Your task to perform on an android device: open app "Flipkart Online Shopping App" (install if not already installed), go to login, and select forgot password Image 0: 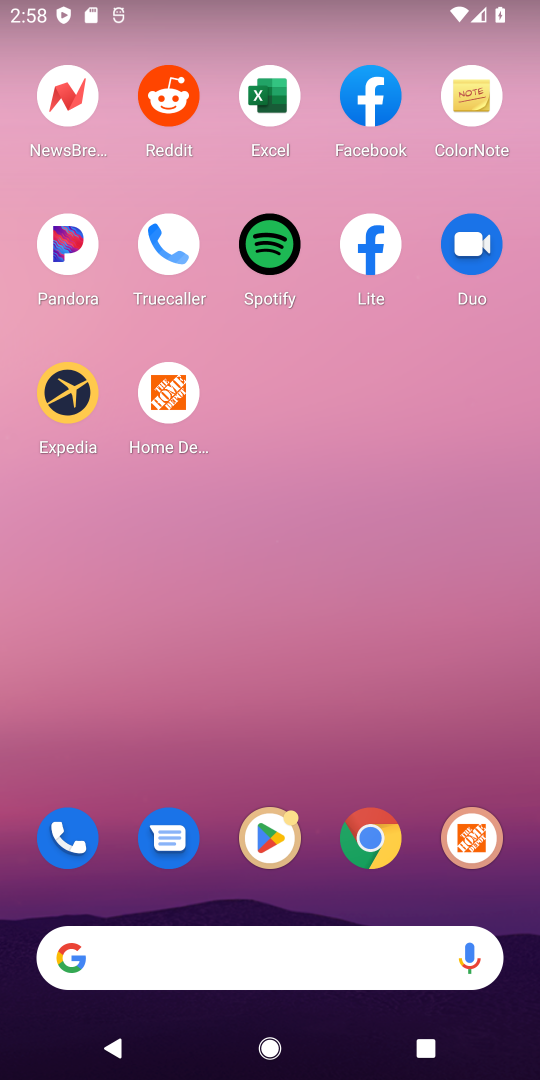
Step 0: press home button
Your task to perform on an android device: open app "Flipkart Online Shopping App" (install if not already installed), go to login, and select forgot password Image 1: 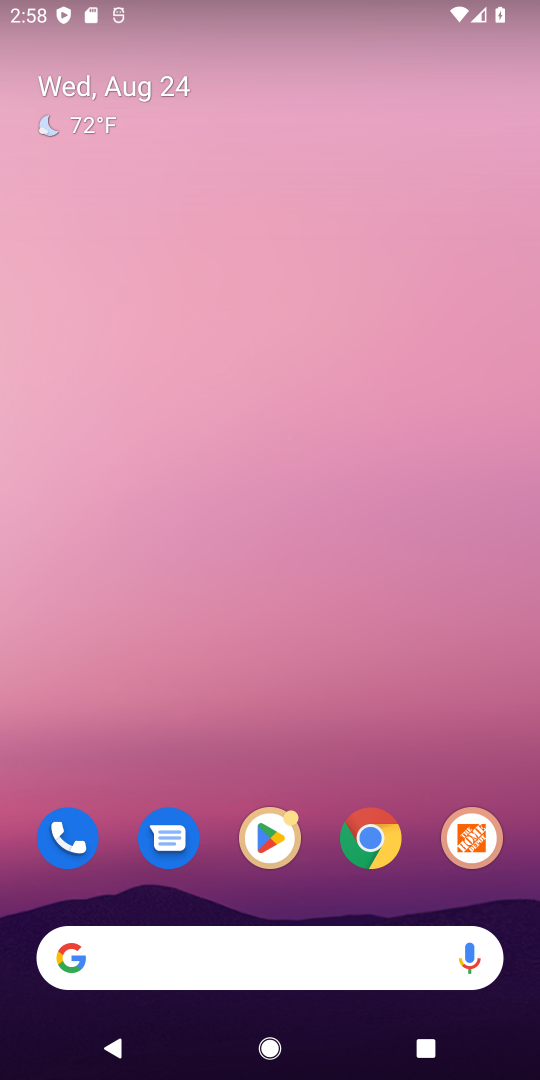
Step 1: drag from (416, 770) to (441, 161)
Your task to perform on an android device: open app "Flipkart Online Shopping App" (install if not already installed), go to login, and select forgot password Image 2: 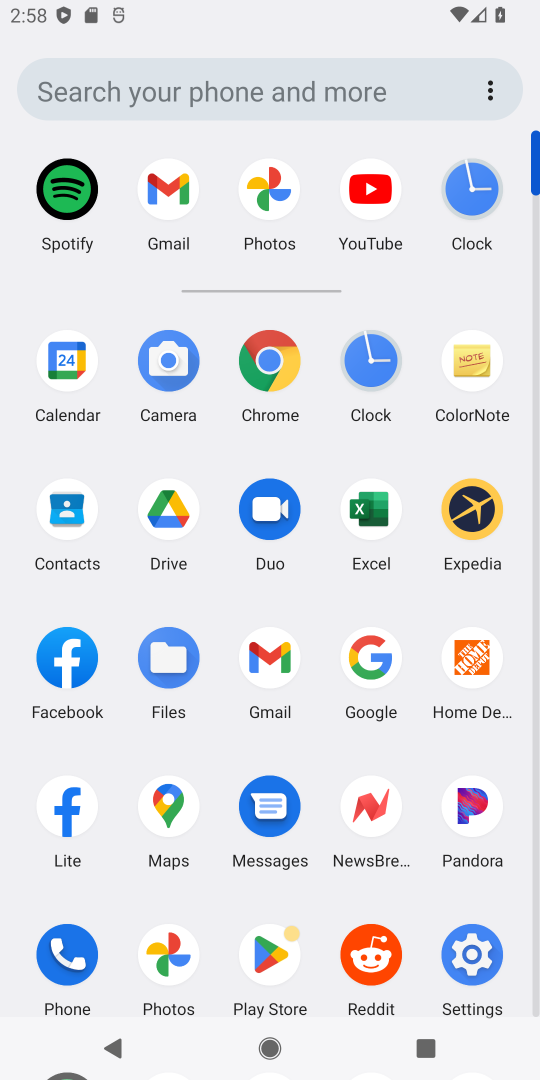
Step 2: click (268, 951)
Your task to perform on an android device: open app "Flipkart Online Shopping App" (install if not already installed), go to login, and select forgot password Image 3: 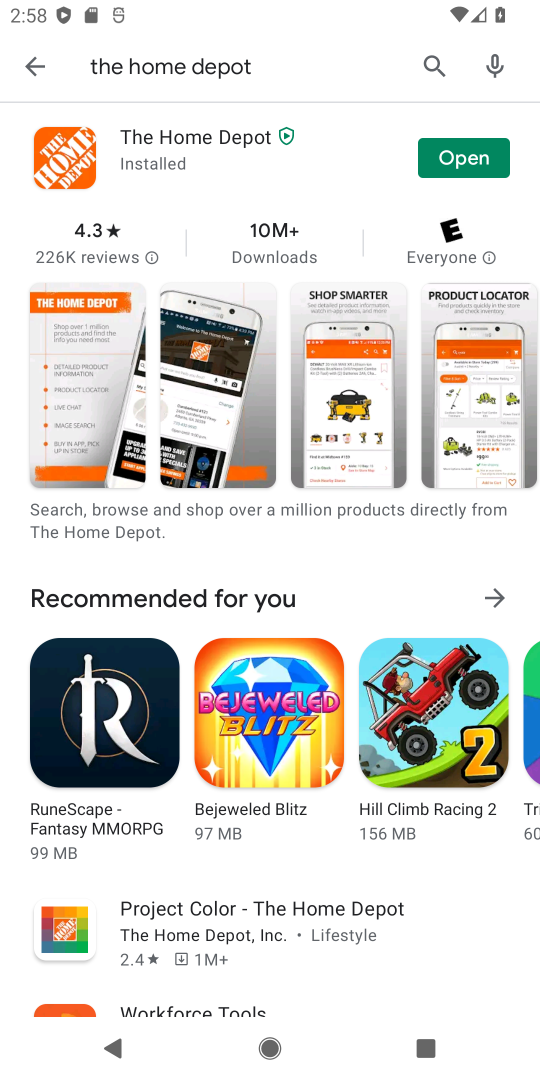
Step 3: press back button
Your task to perform on an android device: open app "Flipkart Online Shopping App" (install if not already installed), go to login, and select forgot password Image 4: 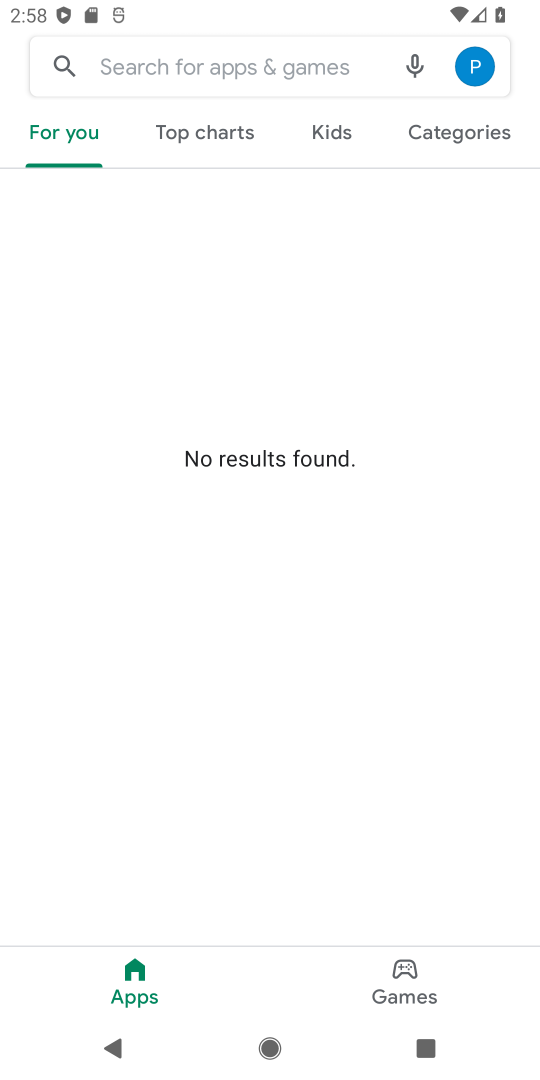
Step 4: click (281, 68)
Your task to perform on an android device: open app "Flipkart Online Shopping App" (install if not already installed), go to login, and select forgot password Image 5: 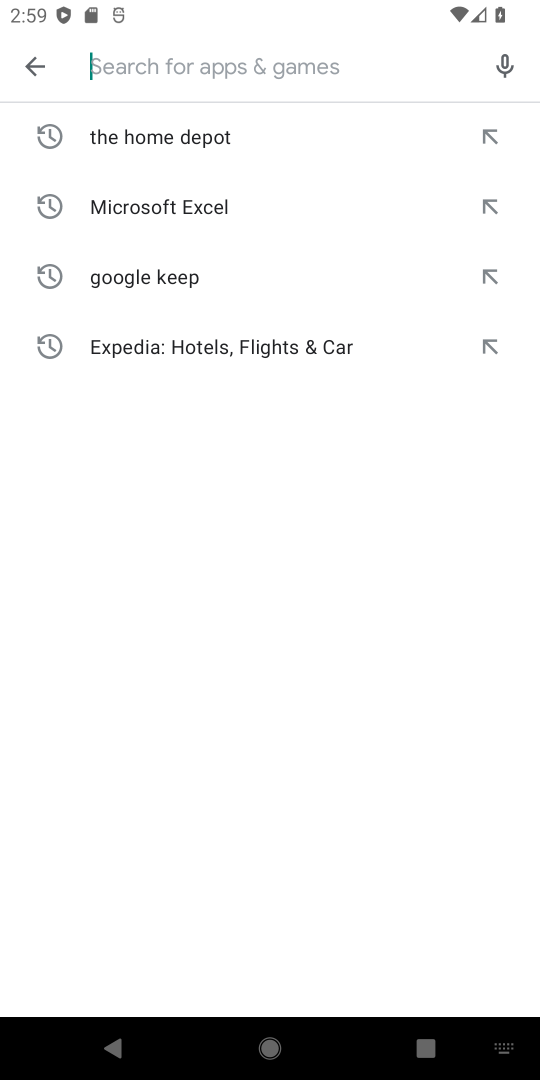
Step 5: type "Flipkart Online Shopping App"
Your task to perform on an android device: open app "Flipkart Online Shopping App" (install if not already installed), go to login, and select forgot password Image 6: 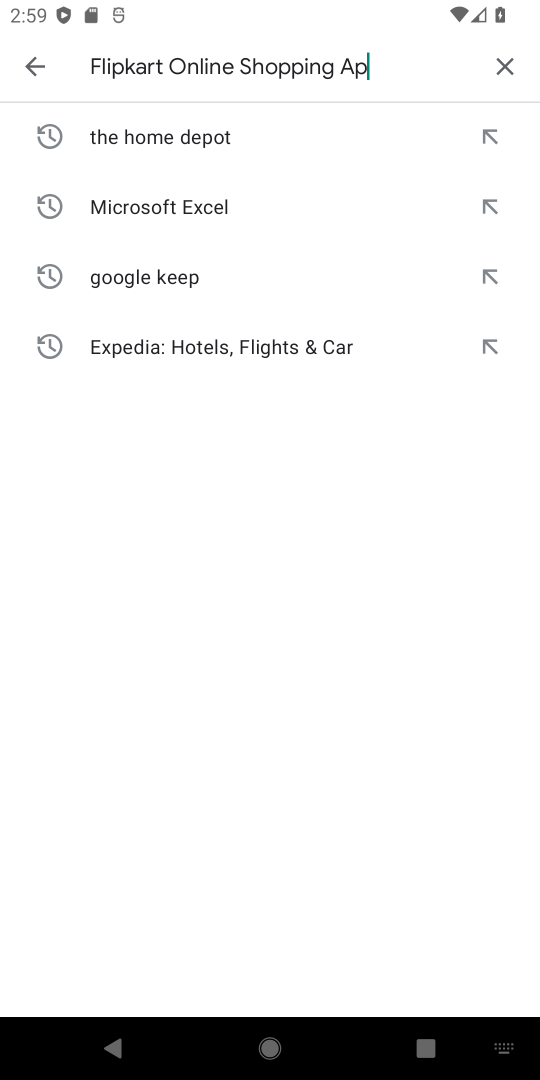
Step 6: press enter
Your task to perform on an android device: open app "Flipkart Online Shopping App" (install if not already installed), go to login, and select forgot password Image 7: 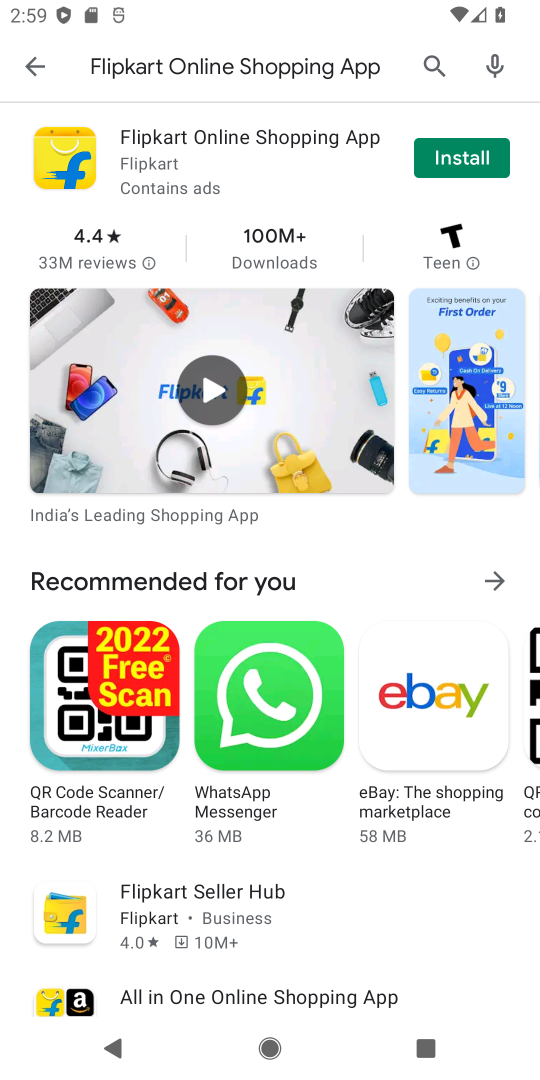
Step 7: click (451, 150)
Your task to perform on an android device: open app "Flipkart Online Shopping App" (install if not already installed), go to login, and select forgot password Image 8: 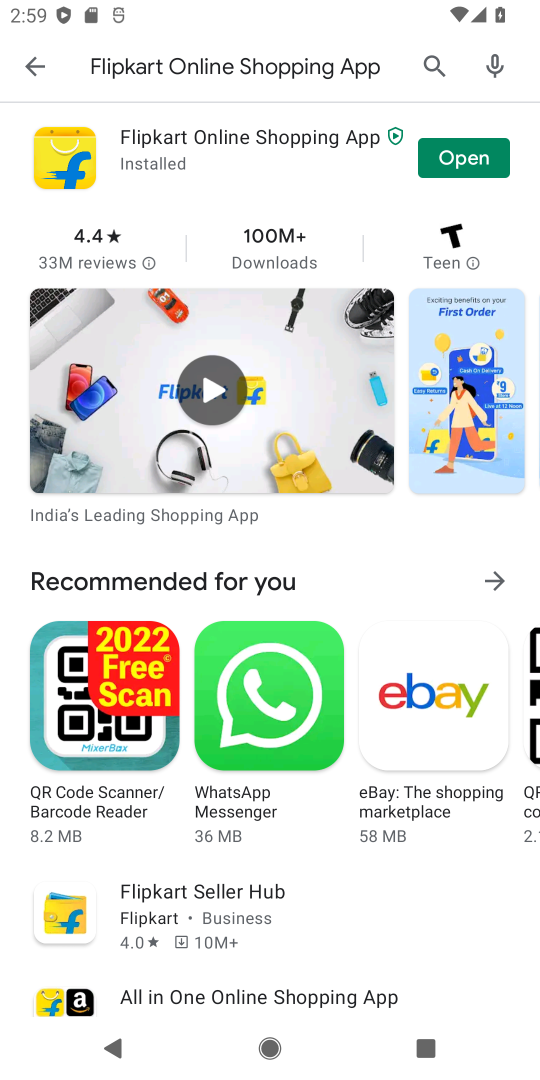
Step 8: click (463, 152)
Your task to perform on an android device: open app "Flipkart Online Shopping App" (install if not already installed), go to login, and select forgot password Image 9: 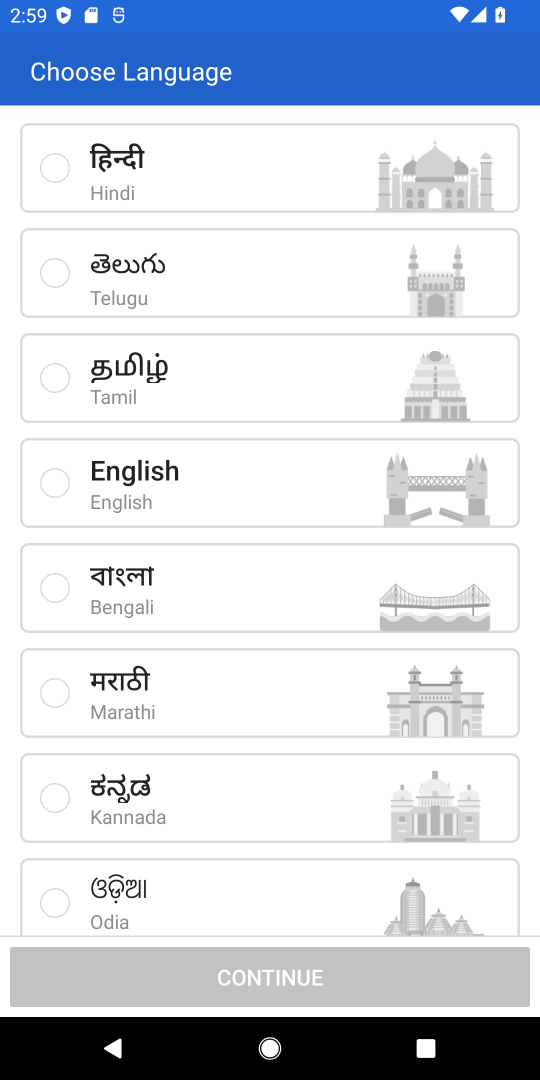
Step 9: click (338, 459)
Your task to perform on an android device: open app "Flipkart Online Shopping App" (install if not already installed), go to login, and select forgot password Image 10: 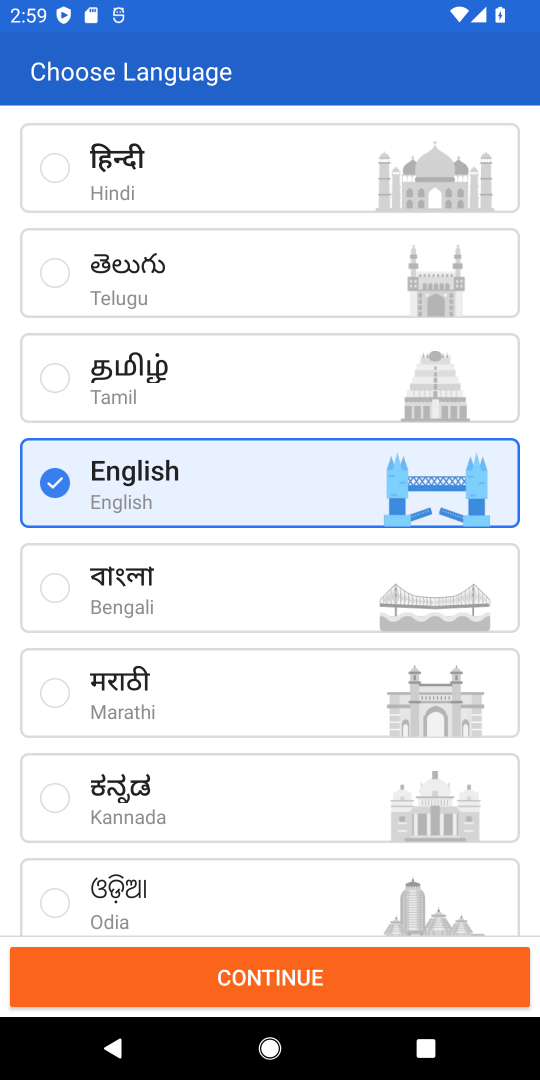
Step 10: click (328, 984)
Your task to perform on an android device: open app "Flipkart Online Shopping App" (install if not already installed), go to login, and select forgot password Image 11: 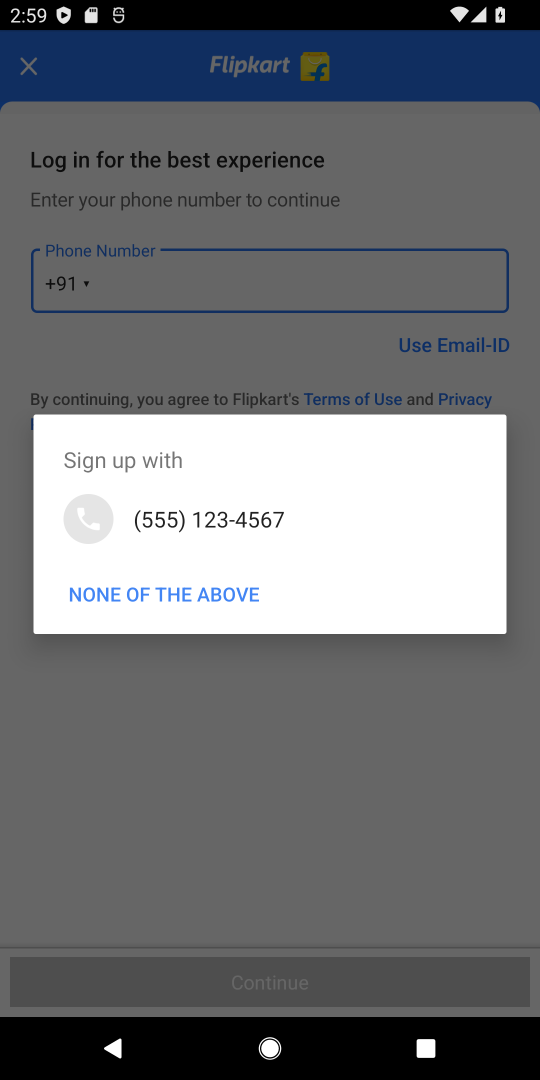
Step 11: click (193, 605)
Your task to perform on an android device: open app "Flipkart Online Shopping App" (install if not already installed), go to login, and select forgot password Image 12: 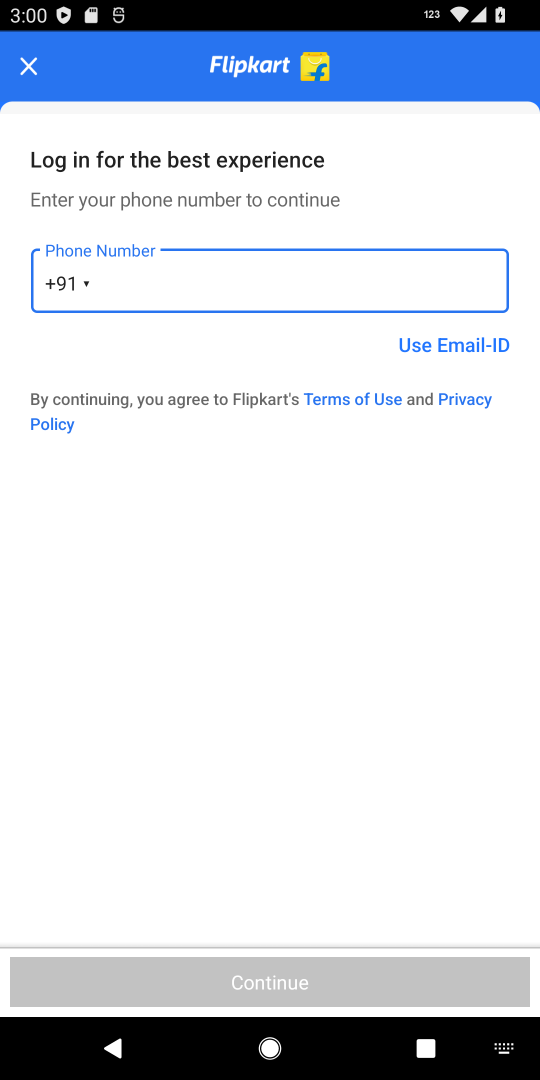
Step 12: click (454, 346)
Your task to perform on an android device: open app "Flipkart Online Shopping App" (install if not already installed), go to login, and select forgot password Image 13: 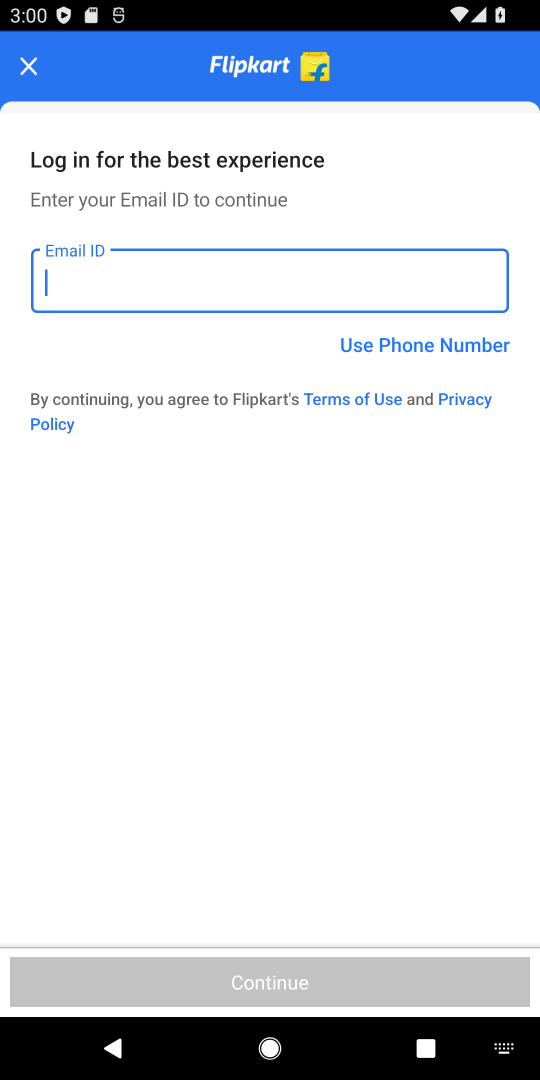
Step 13: task complete